Your task to perform on an android device: change the clock style Image 0: 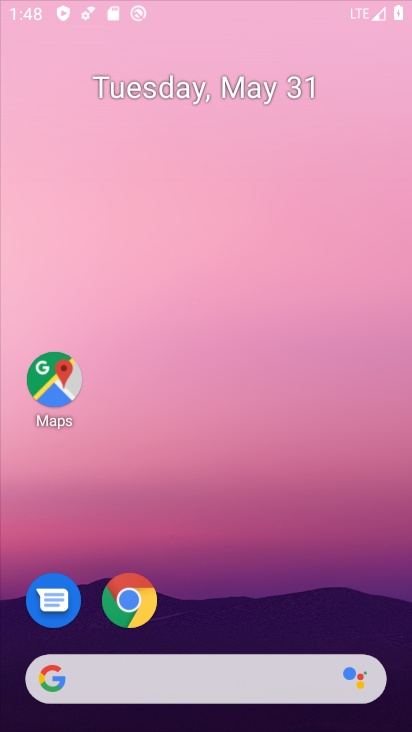
Step 0: press home button
Your task to perform on an android device: change the clock style Image 1: 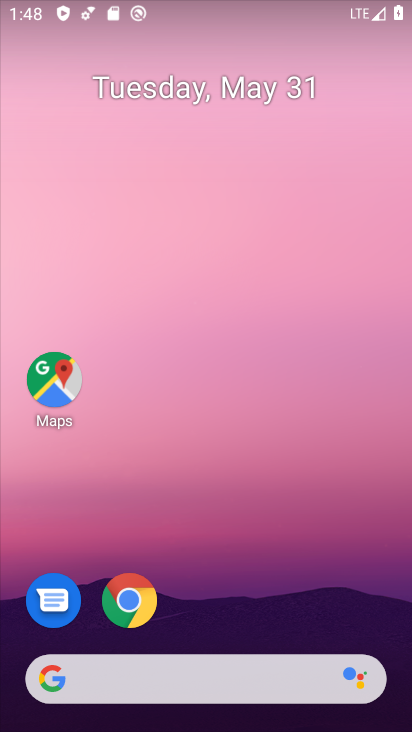
Step 1: drag from (211, 627) to (211, 81)
Your task to perform on an android device: change the clock style Image 2: 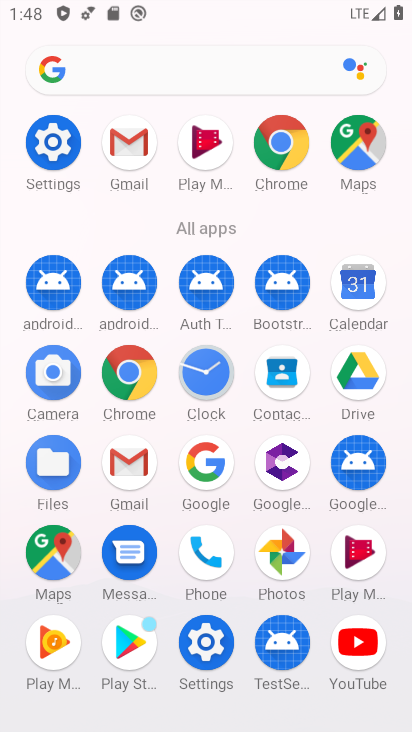
Step 2: click (203, 365)
Your task to perform on an android device: change the clock style Image 3: 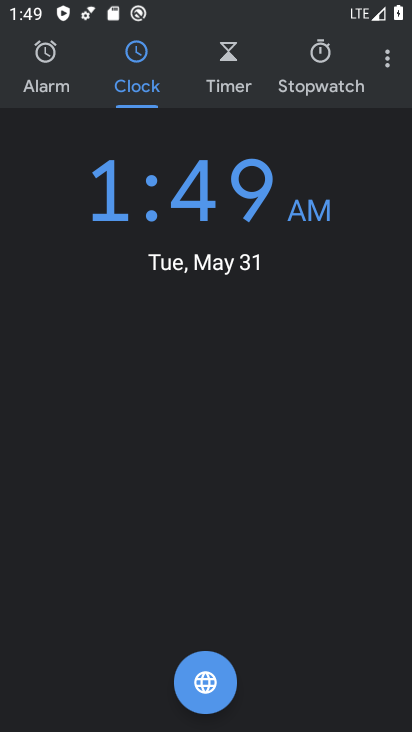
Step 3: click (392, 55)
Your task to perform on an android device: change the clock style Image 4: 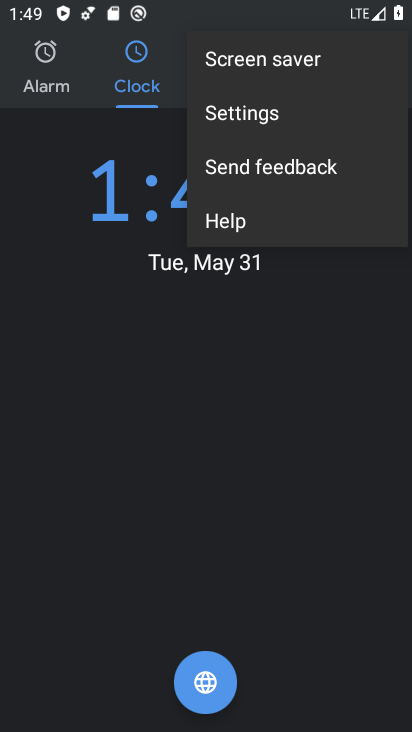
Step 4: click (281, 110)
Your task to perform on an android device: change the clock style Image 5: 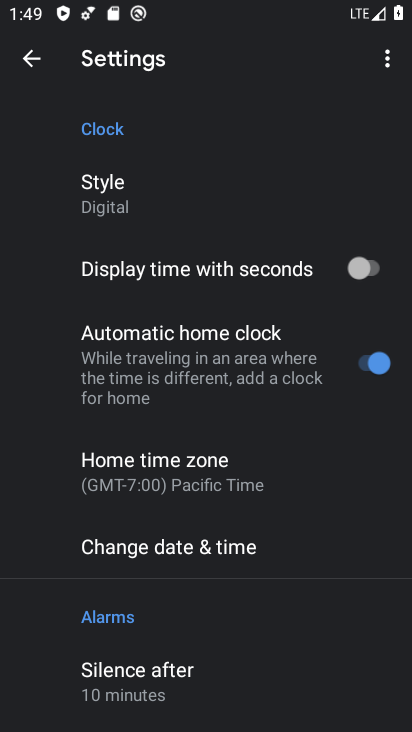
Step 5: click (141, 193)
Your task to perform on an android device: change the clock style Image 6: 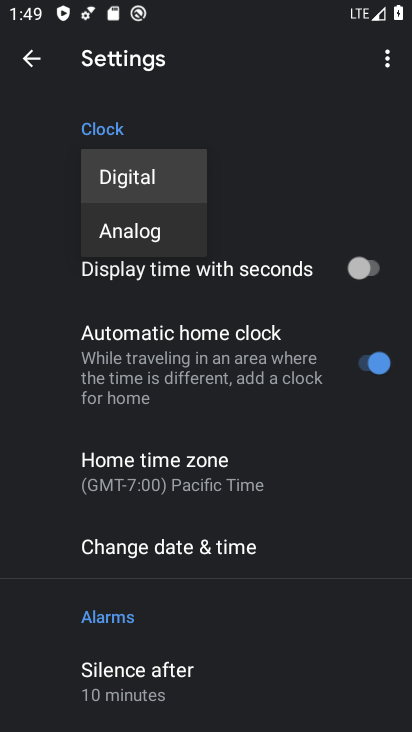
Step 6: click (171, 233)
Your task to perform on an android device: change the clock style Image 7: 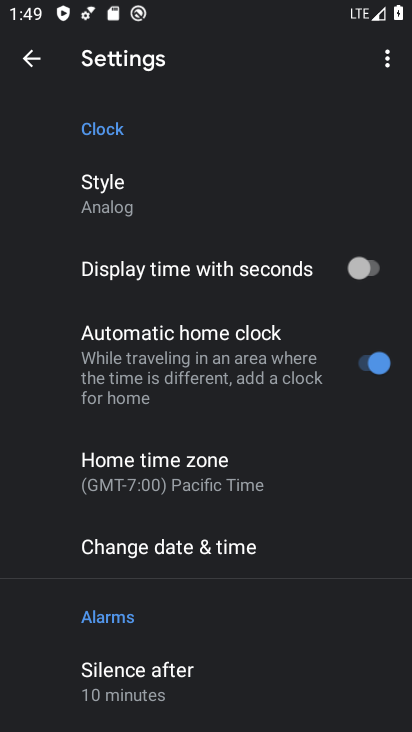
Step 7: task complete